Your task to perform on an android device: Open Google Chrome and open the bookmarks view Image 0: 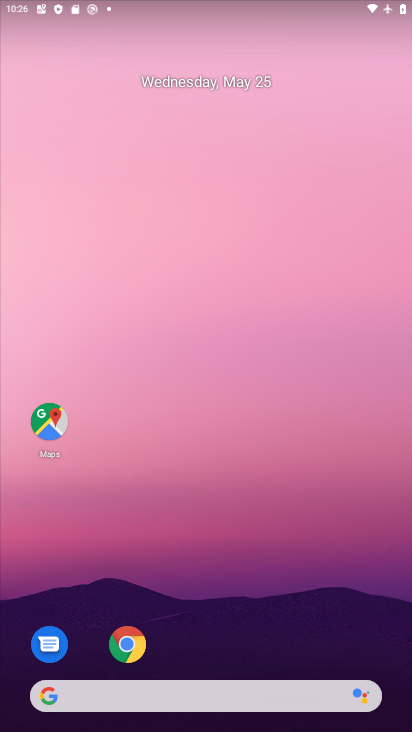
Step 0: click (128, 648)
Your task to perform on an android device: Open Google Chrome and open the bookmarks view Image 1: 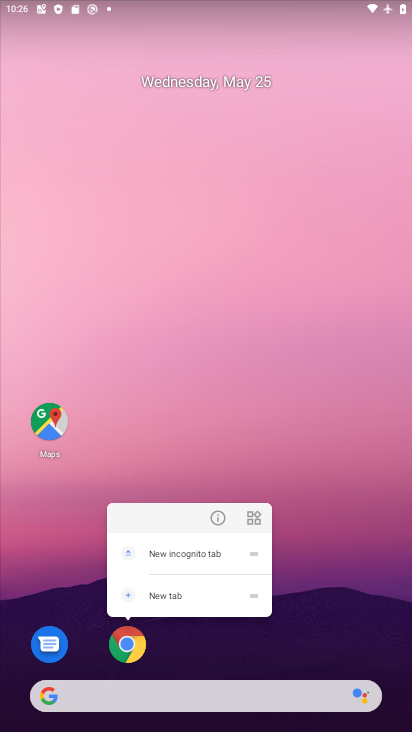
Step 1: click (129, 637)
Your task to perform on an android device: Open Google Chrome and open the bookmarks view Image 2: 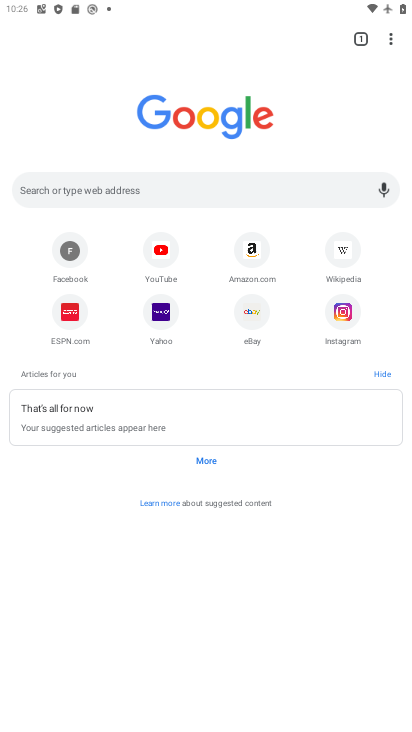
Step 2: click (382, 38)
Your task to perform on an android device: Open Google Chrome and open the bookmarks view Image 3: 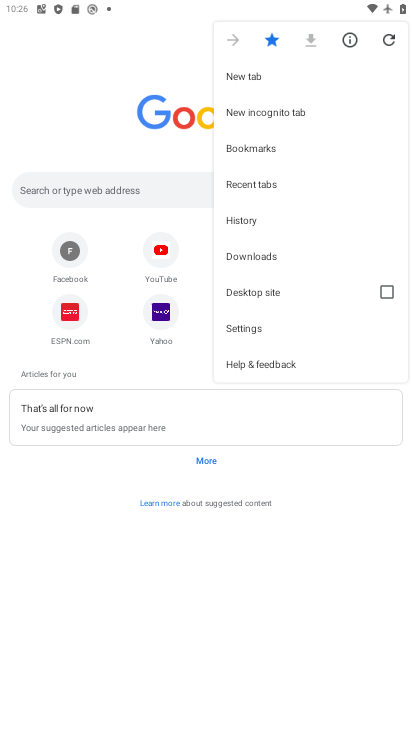
Step 3: click (229, 149)
Your task to perform on an android device: Open Google Chrome and open the bookmarks view Image 4: 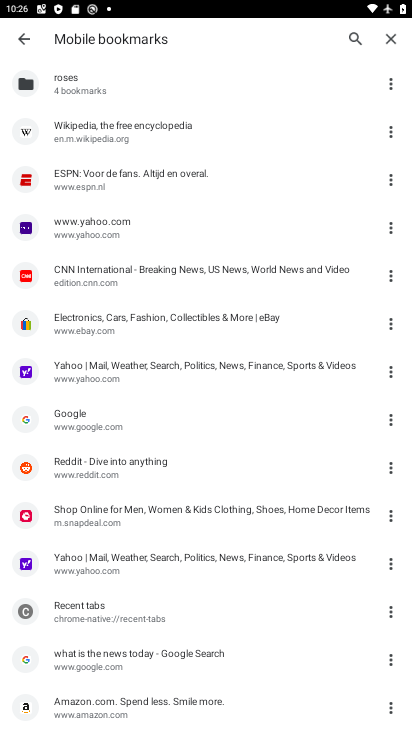
Step 4: click (97, 229)
Your task to perform on an android device: Open Google Chrome and open the bookmarks view Image 5: 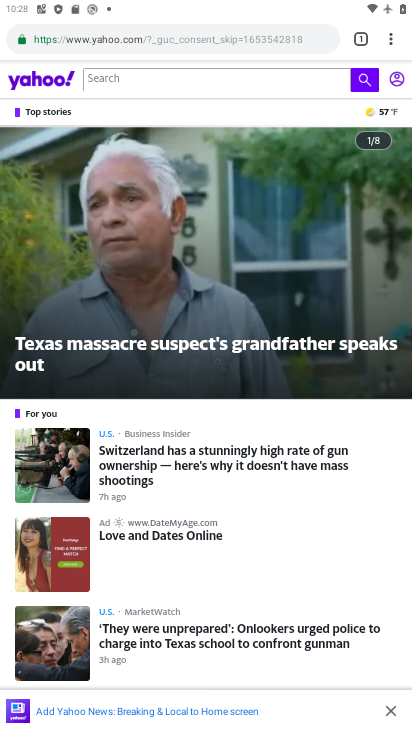
Step 5: task complete